Your task to perform on an android device: Open Google Maps and go to "Timeline" Image 0: 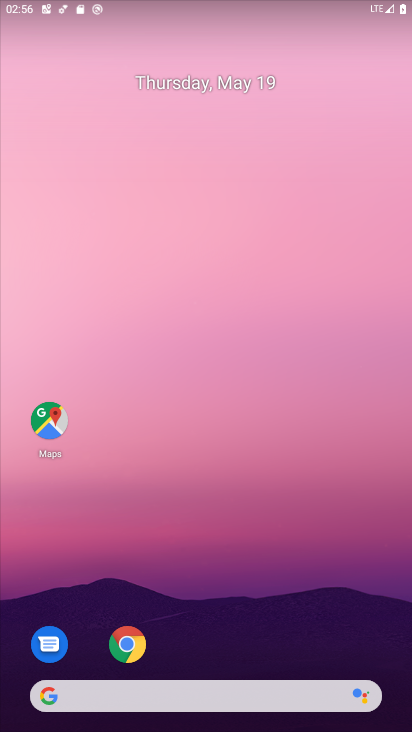
Step 0: click (48, 408)
Your task to perform on an android device: Open Google Maps and go to "Timeline" Image 1: 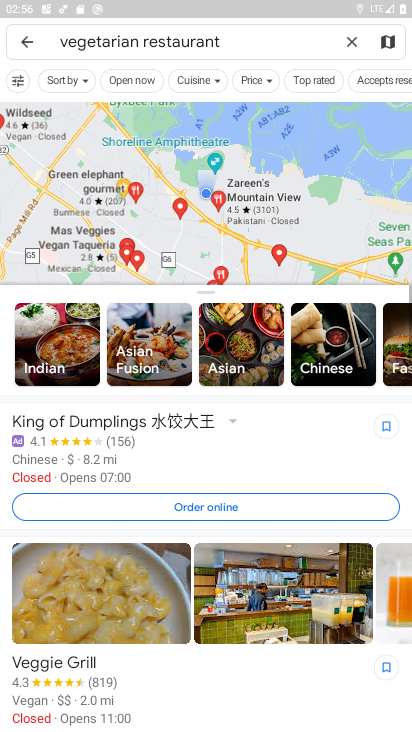
Step 1: click (348, 40)
Your task to perform on an android device: Open Google Maps and go to "Timeline" Image 2: 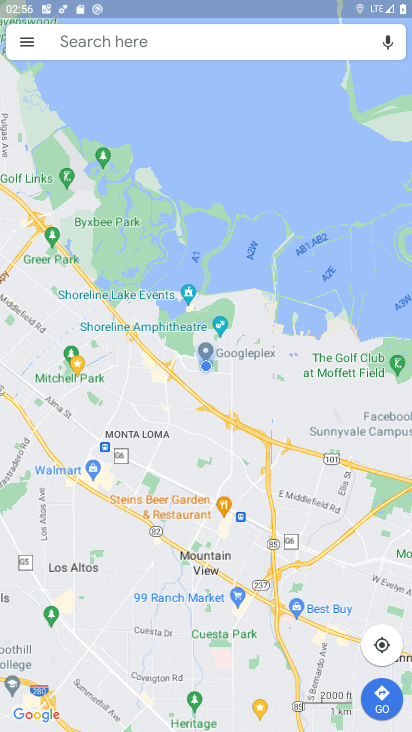
Step 2: click (26, 44)
Your task to perform on an android device: Open Google Maps and go to "Timeline" Image 3: 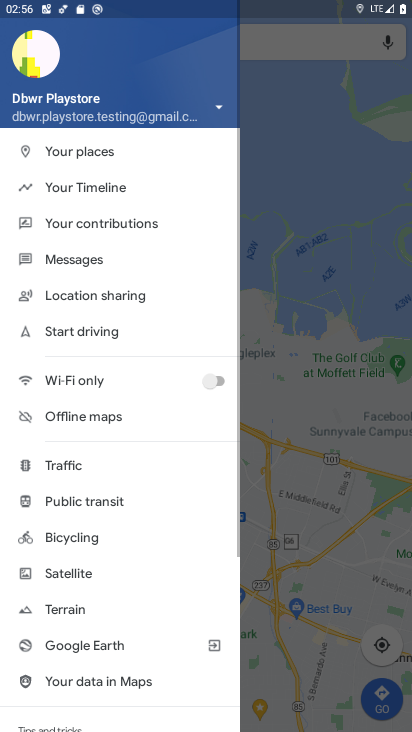
Step 3: click (104, 182)
Your task to perform on an android device: Open Google Maps and go to "Timeline" Image 4: 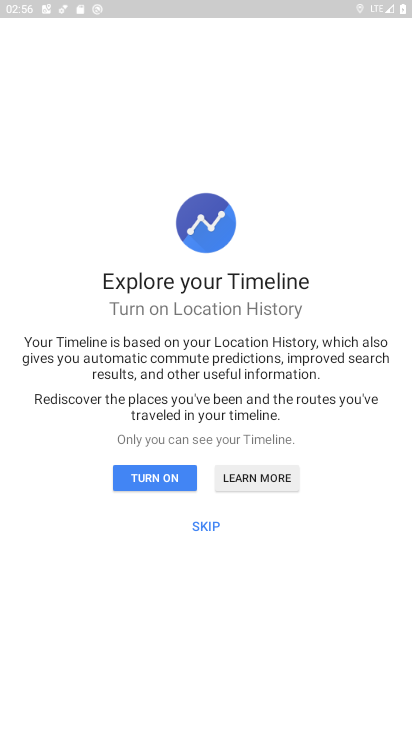
Step 4: click (208, 524)
Your task to perform on an android device: Open Google Maps and go to "Timeline" Image 5: 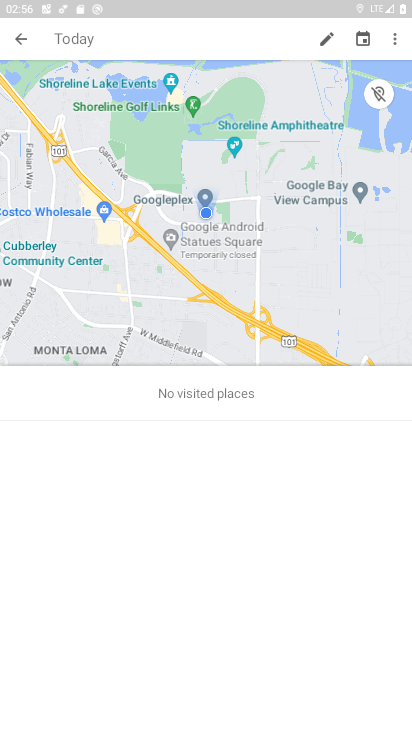
Step 5: task complete